Your task to perform on an android device: open a bookmark in the chrome app Image 0: 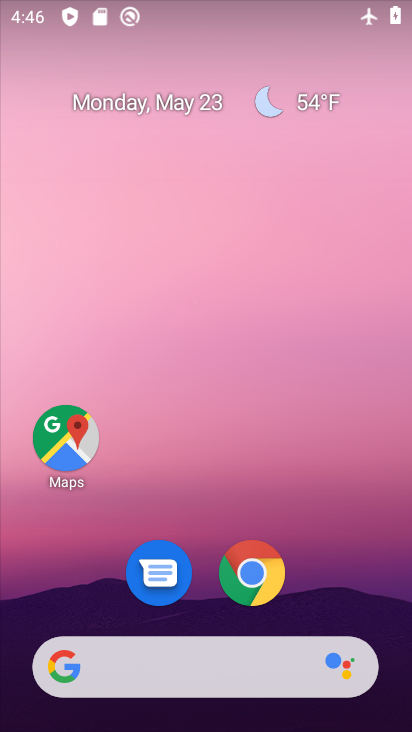
Step 0: click (259, 576)
Your task to perform on an android device: open a bookmark in the chrome app Image 1: 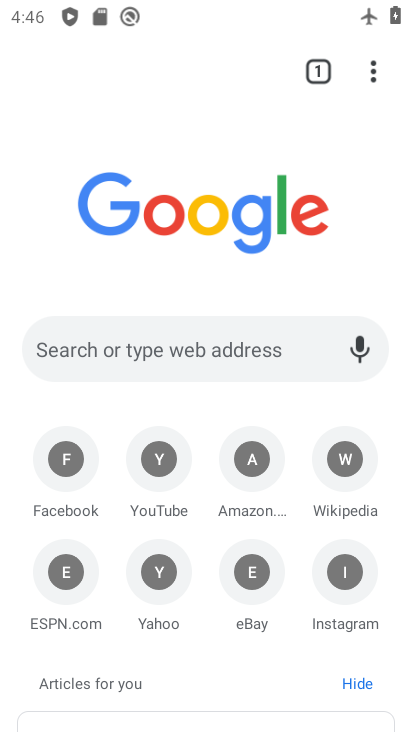
Step 1: click (372, 79)
Your task to perform on an android device: open a bookmark in the chrome app Image 2: 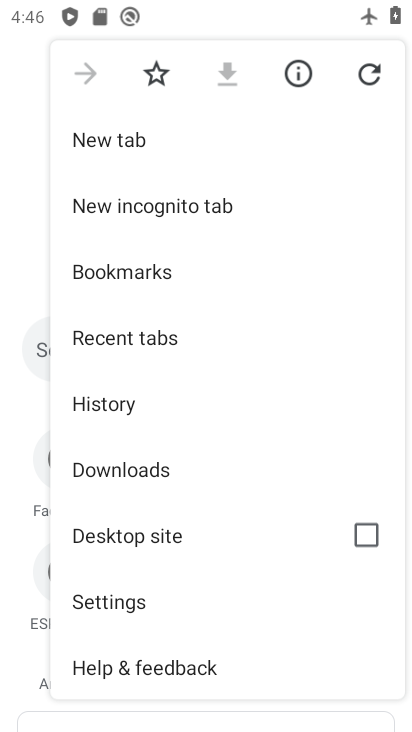
Step 2: click (123, 268)
Your task to perform on an android device: open a bookmark in the chrome app Image 3: 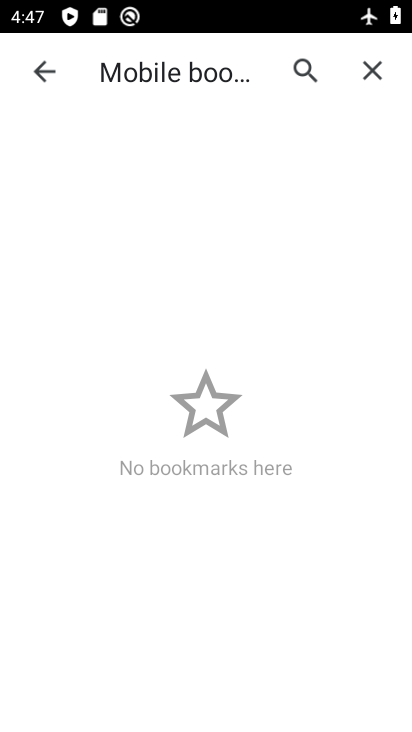
Step 3: task complete